Your task to perform on an android device: Open Android settings Image 0: 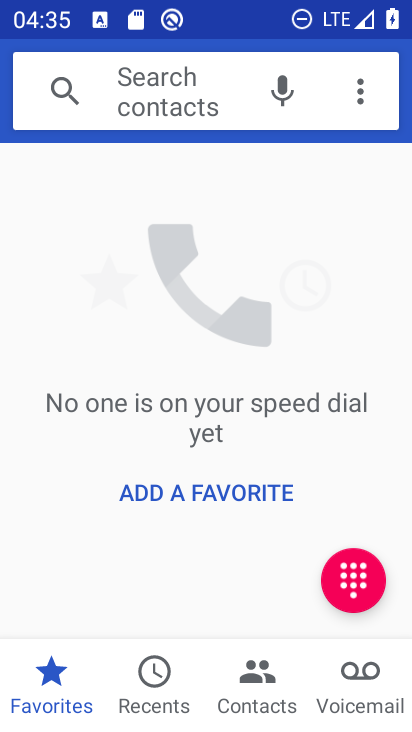
Step 0: press home button
Your task to perform on an android device: Open Android settings Image 1: 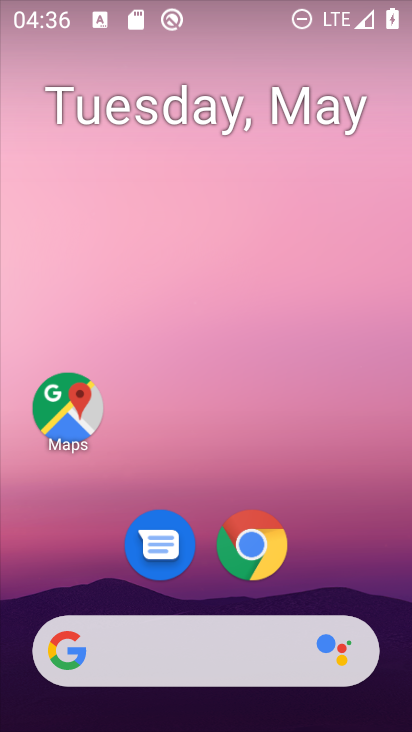
Step 1: drag from (397, 618) to (326, 68)
Your task to perform on an android device: Open Android settings Image 2: 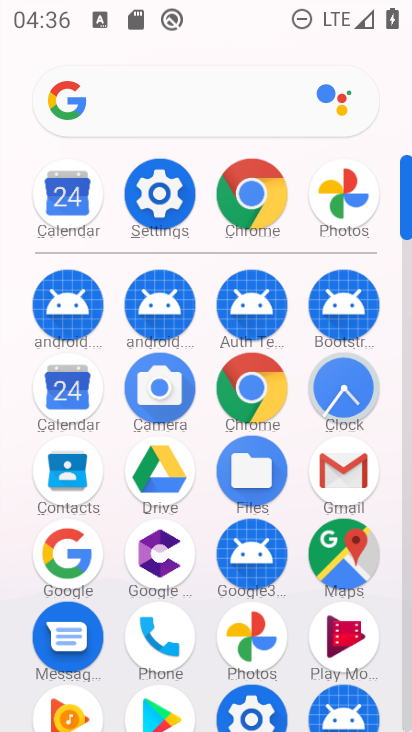
Step 2: click (407, 684)
Your task to perform on an android device: Open Android settings Image 3: 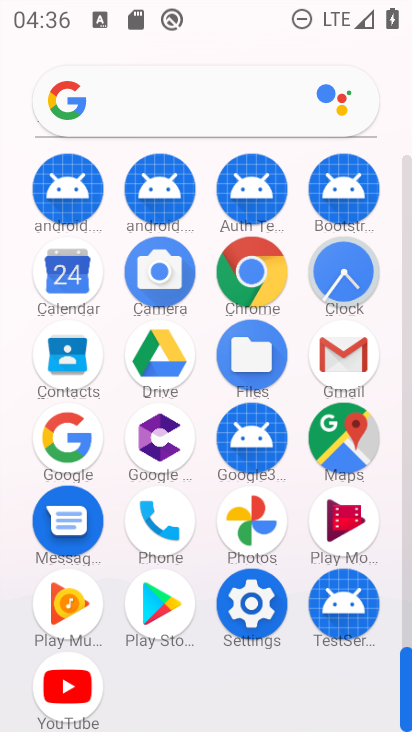
Step 3: click (259, 607)
Your task to perform on an android device: Open Android settings Image 4: 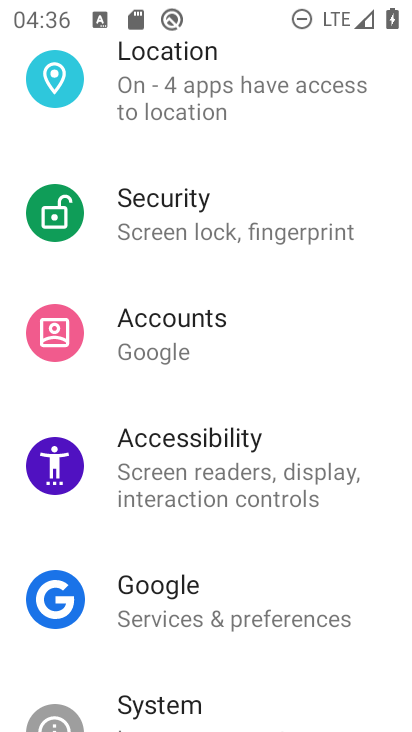
Step 4: drag from (367, 598) to (362, 6)
Your task to perform on an android device: Open Android settings Image 5: 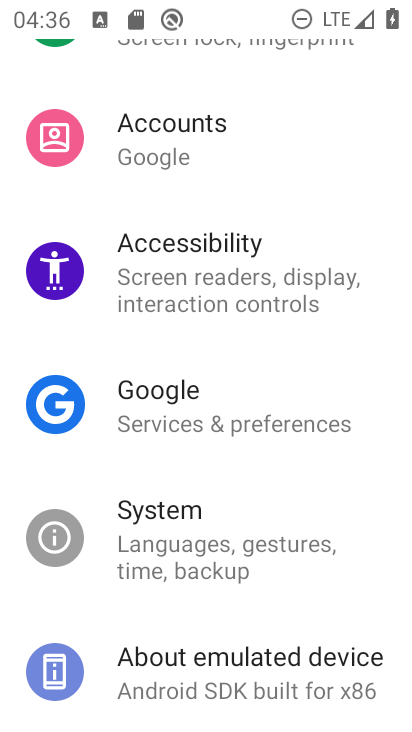
Step 5: click (168, 681)
Your task to perform on an android device: Open Android settings Image 6: 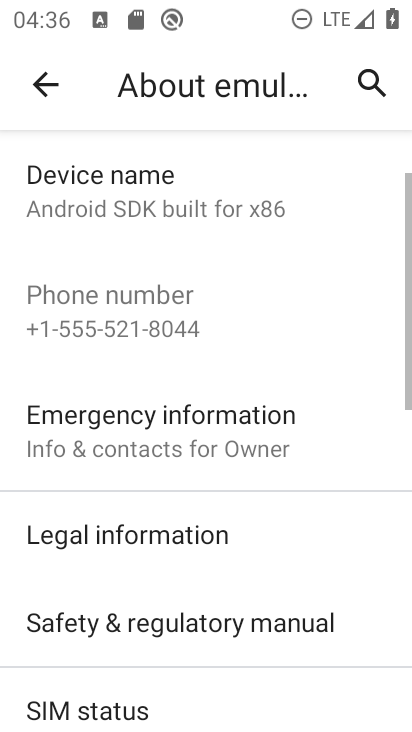
Step 6: task complete